Your task to perform on an android device: open app "Adobe Acrobat Reader: Edit PDF" (install if not already installed) Image 0: 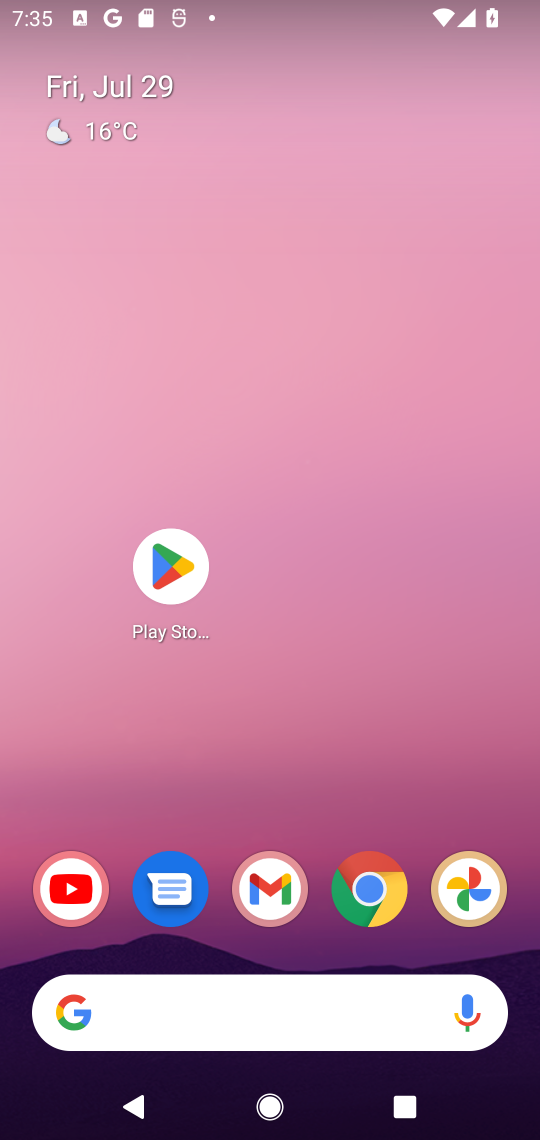
Step 0: click (173, 570)
Your task to perform on an android device: open app "Adobe Acrobat Reader: Edit PDF" (install if not already installed) Image 1: 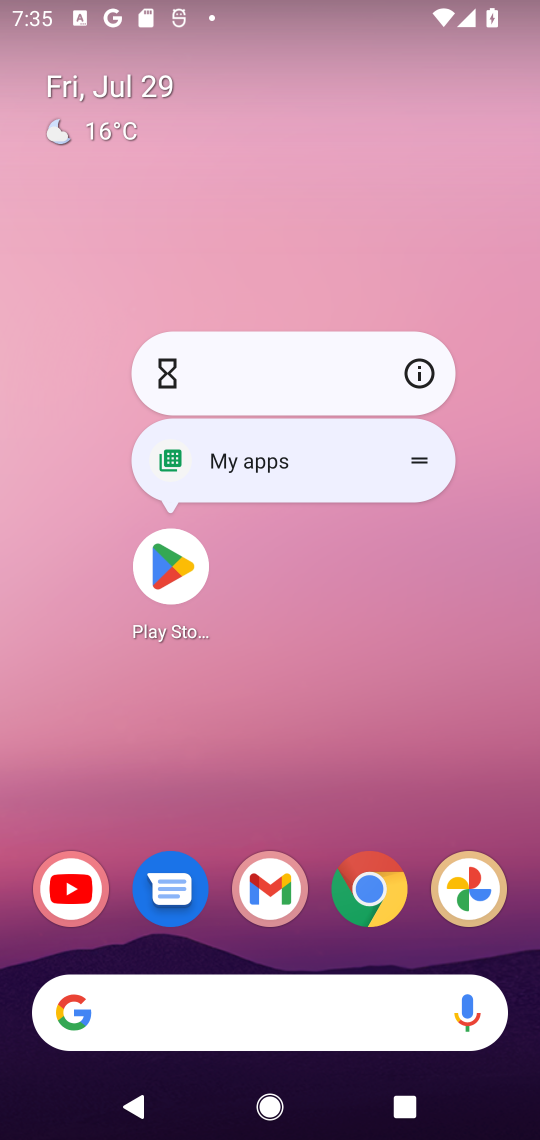
Step 1: click (179, 560)
Your task to perform on an android device: open app "Adobe Acrobat Reader: Edit PDF" (install if not already installed) Image 2: 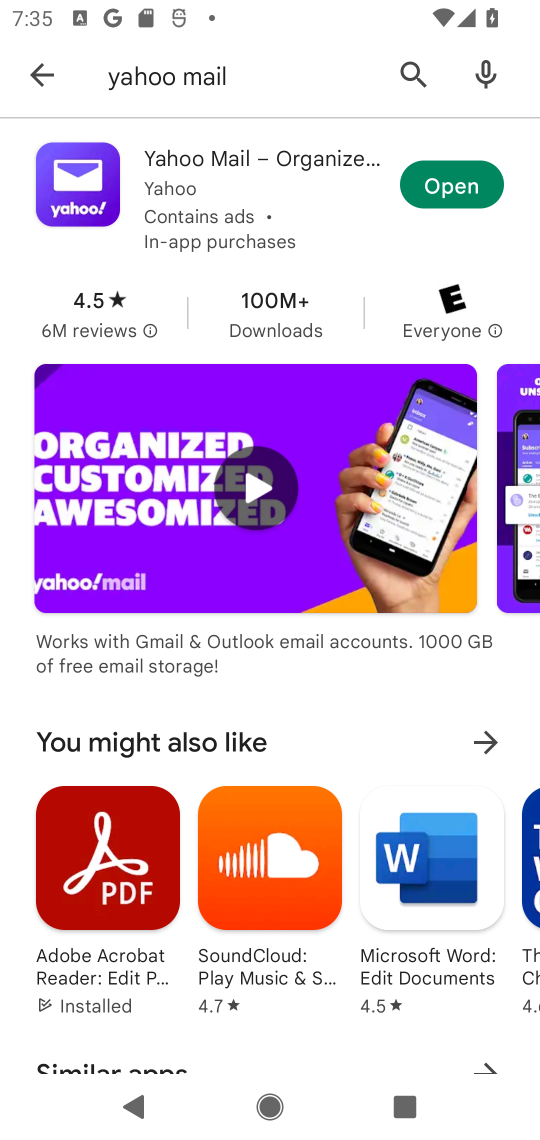
Step 2: click (410, 77)
Your task to perform on an android device: open app "Adobe Acrobat Reader: Edit PDF" (install if not already installed) Image 3: 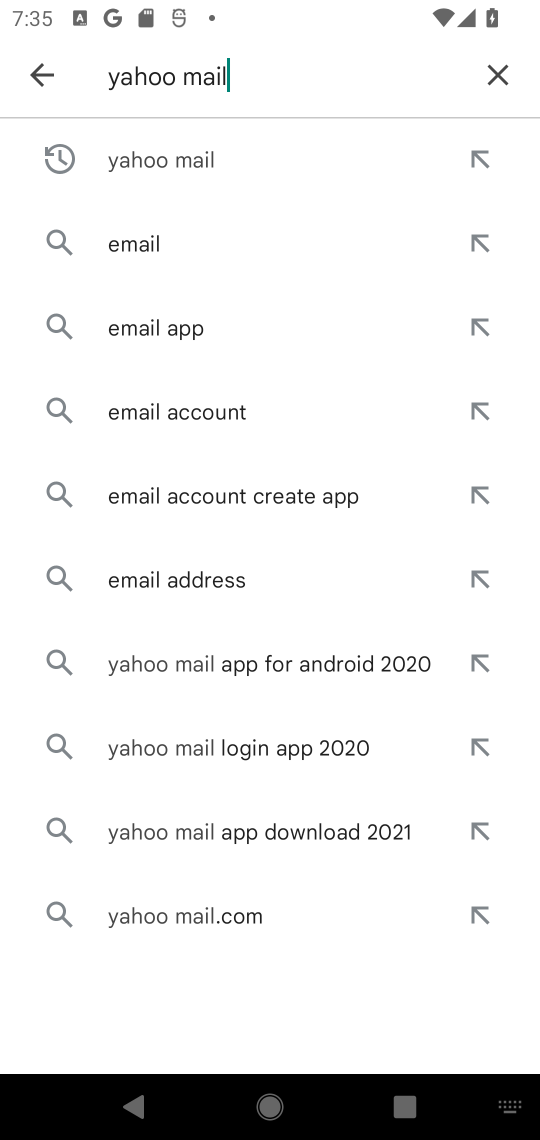
Step 3: click (499, 65)
Your task to perform on an android device: open app "Adobe Acrobat Reader: Edit PDF" (install if not already installed) Image 4: 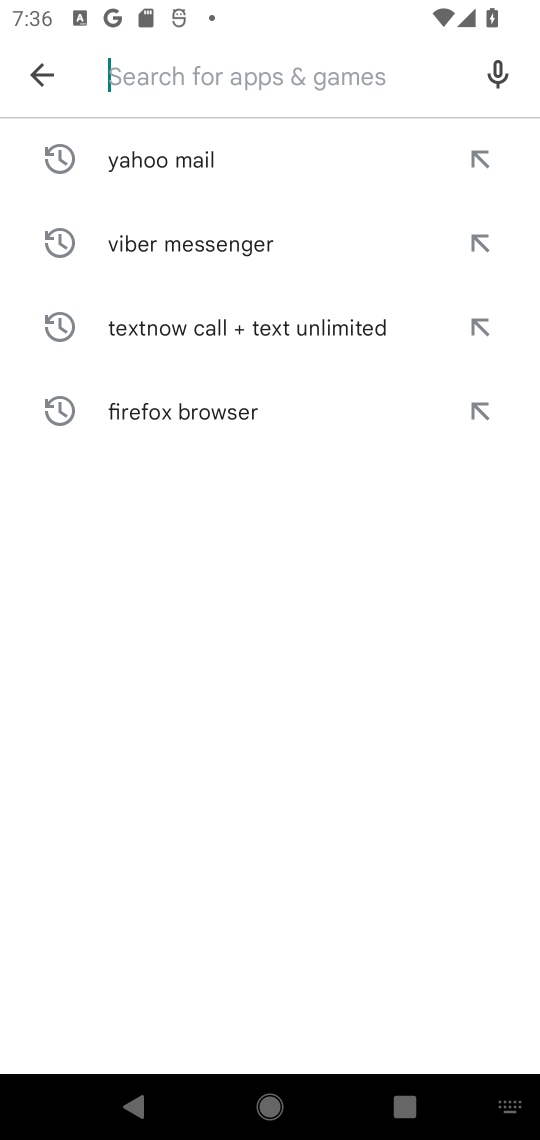
Step 4: type "Adobe Acrobat Reader: Edit PDF"
Your task to perform on an android device: open app "Adobe Acrobat Reader: Edit PDF" (install if not already installed) Image 5: 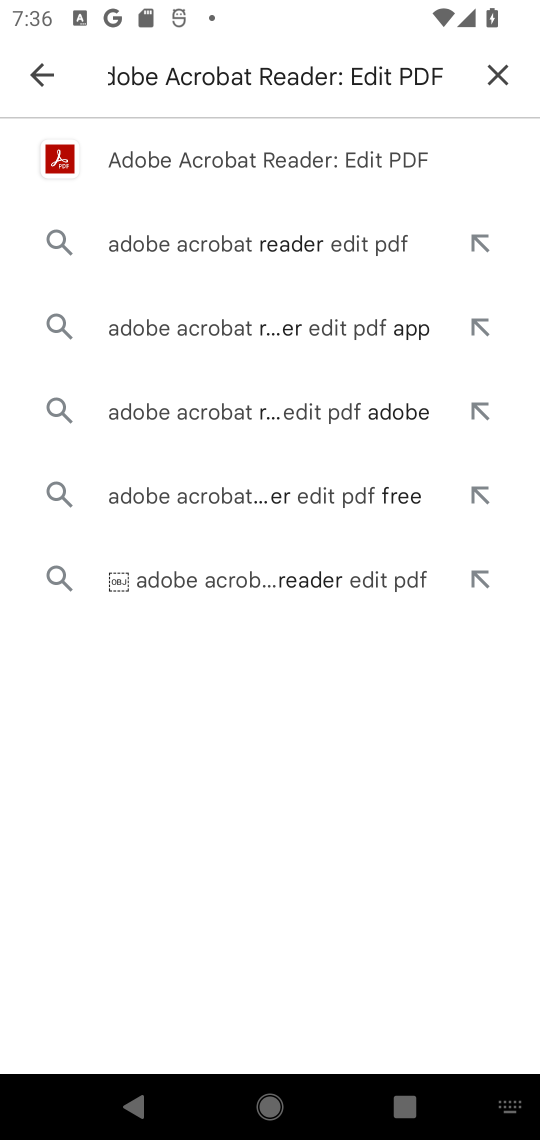
Step 5: click (285, 151)
Your task to perform on an android device: open app "Adobe Acrobat Reader: Edit PDF" (install if not already installed) Image 6: 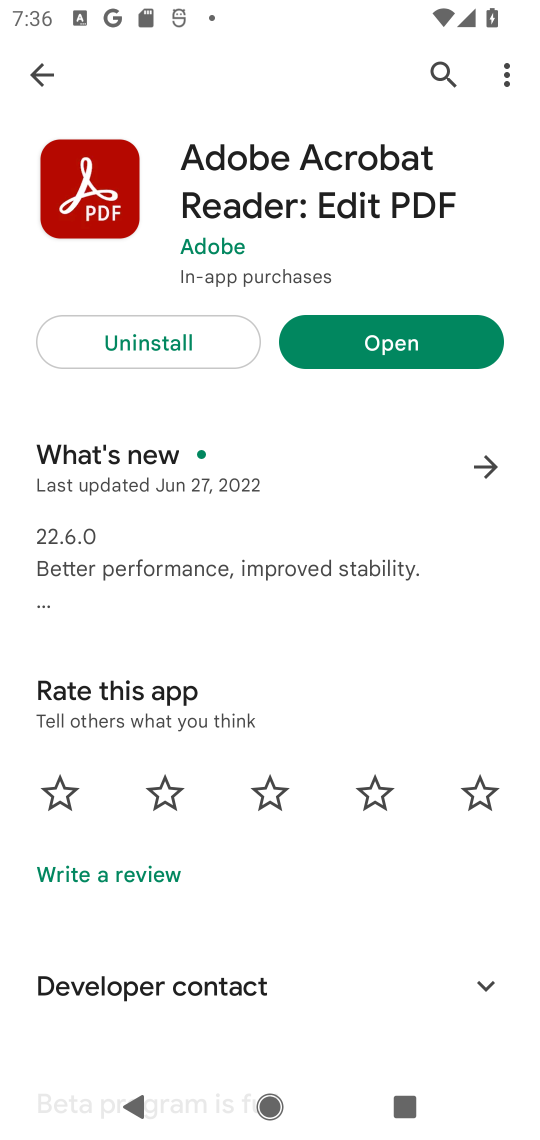
Step 6: click (372, 347)
Your task to perform on an android device: open app "Adobe Acrobat Reader: Edit PDF" (install if not already installed) Image 7: 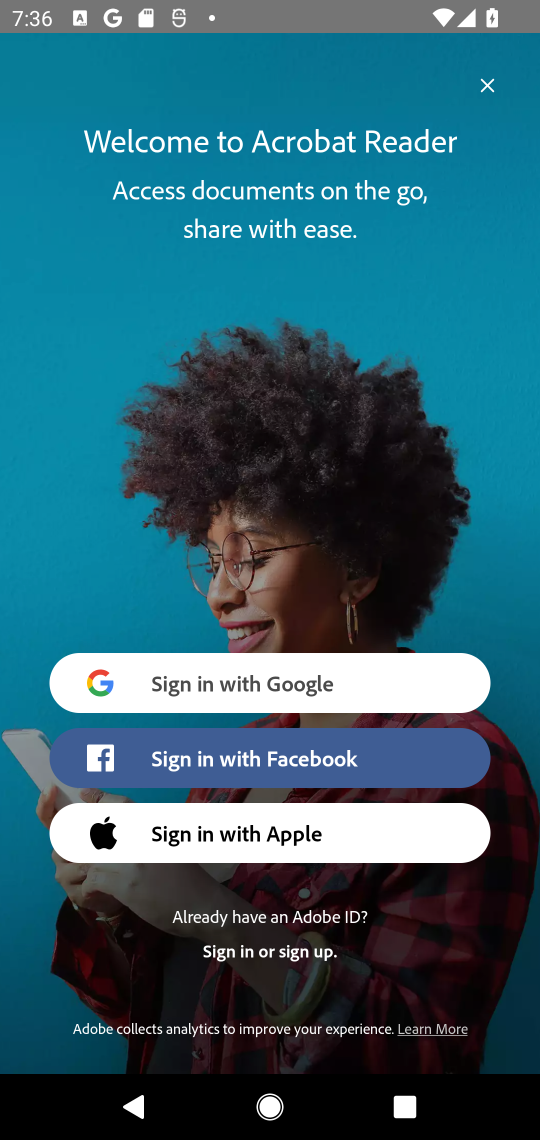
Step 7: task complete